Your task to perform on an android device: What is the recent news? Image 0: 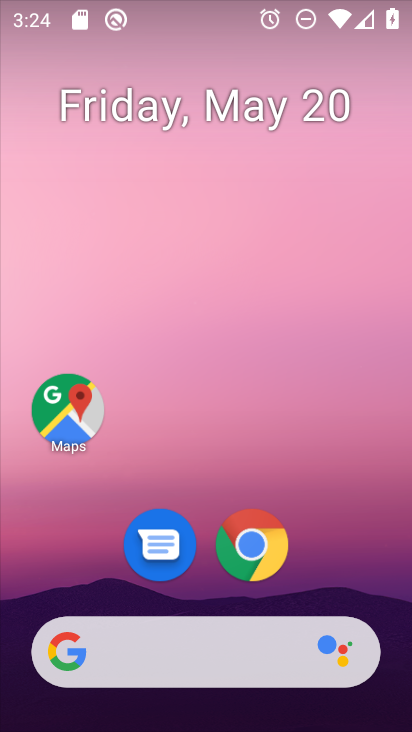
Step 0: click (233, 644)
Your task to perform on an android device: What is the recent news? Image 1: 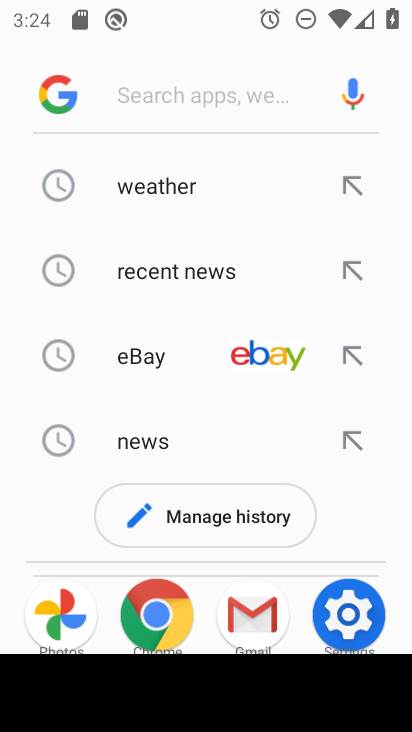
Step 1: click (180, 268)
Your task to perform on an android device: What is the recent news? Image 2: 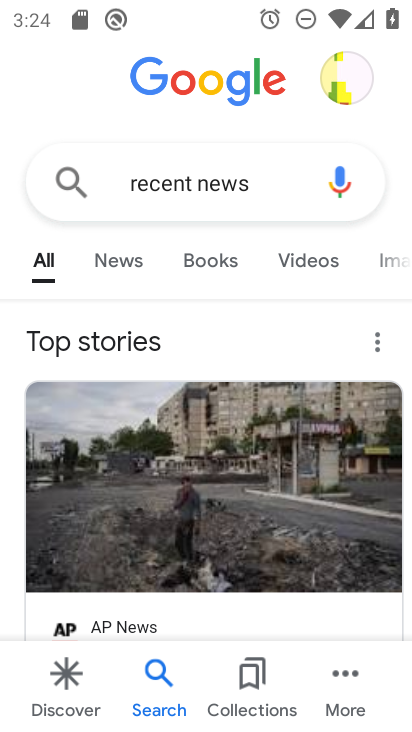
Step 2: click (120, 254)
Your task to perform on an android device: What is the recent news? Image 3: 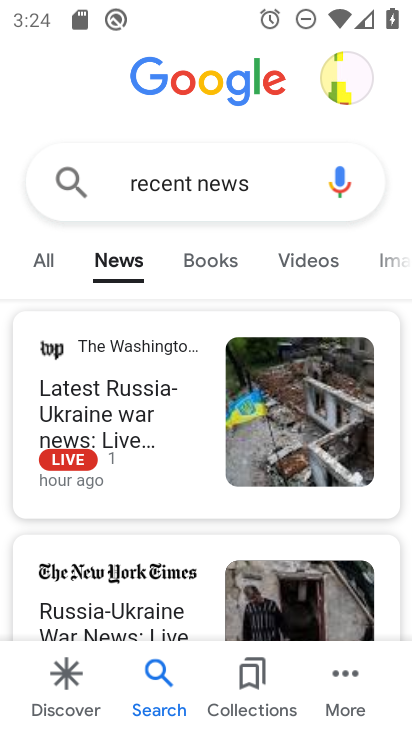
Step 3: task complete